Your task to perform on an android device: Go to internet settings Image 0: 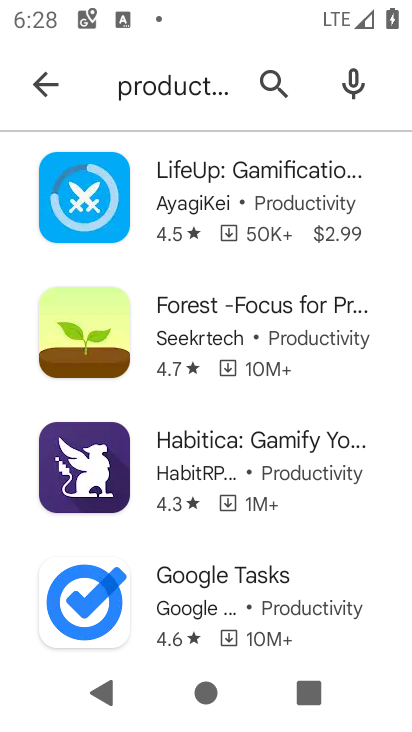
Step 0: press home button
Your task to perform on an android device: Go to internet settings Image 1: 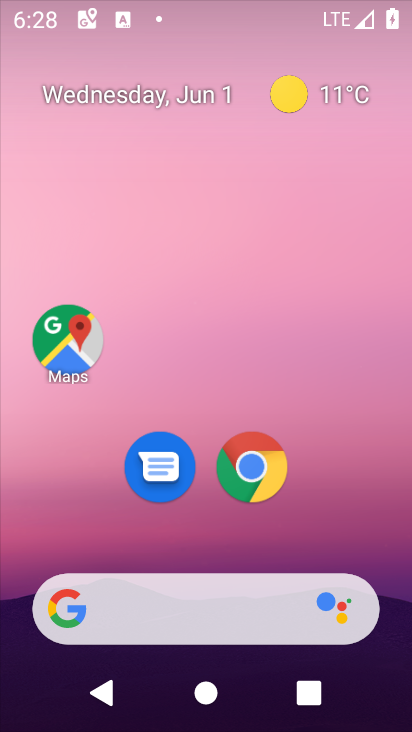
Step 1: drag from (311, 443) to (139, 46)
Your task to perform on an android device: Go to internet settings Image 2: 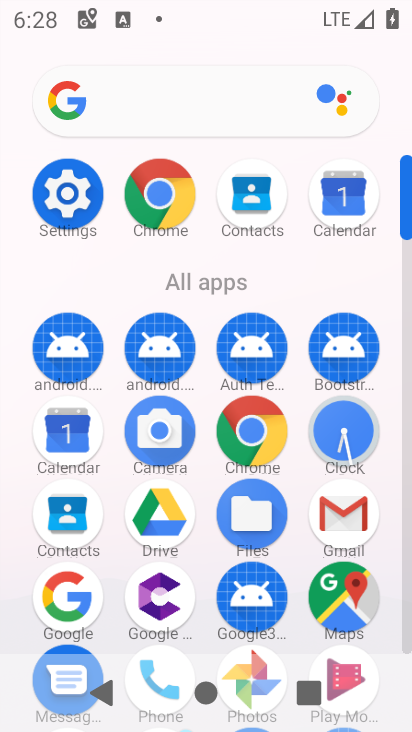
Step 2: click (71, 202)
Your task to perform on an android device: Go to internet settings Image 3: 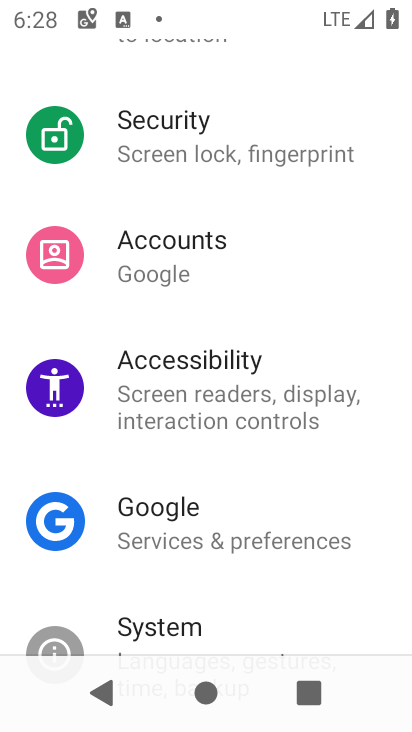
Step 3: drag from (301, 152) to (204, 611)
Your task to perform on an android device: Go to internet settings Image 4: 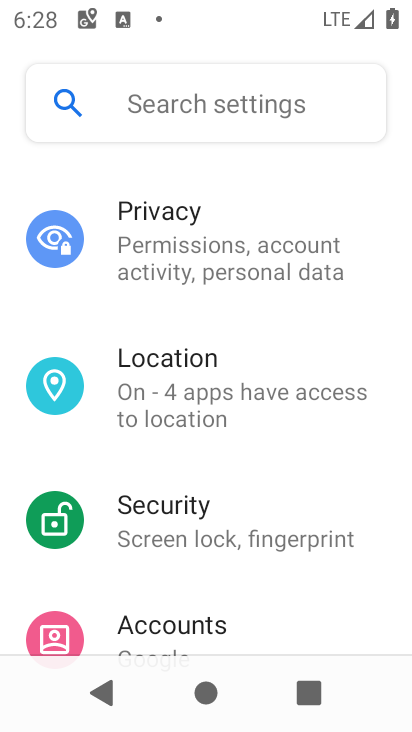
Step 4: drag from (286, 191) to (181, 598)
Your task to perform on an android device: Go to internet settings Image 5: 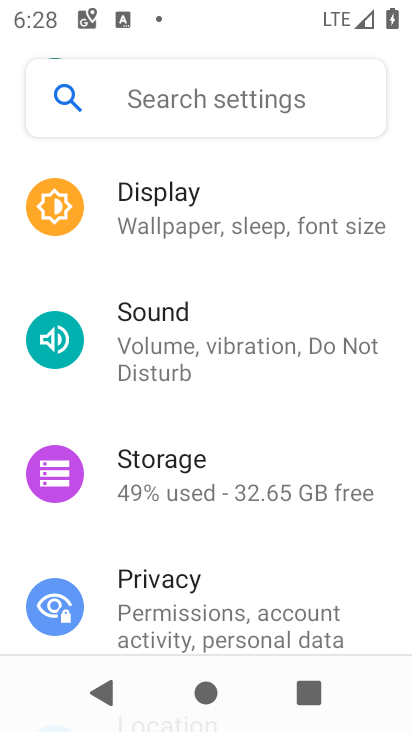
Step 5: drag from (265, 185) to (128, 626)
Your task to perform on an android device: Go to internet settings Image 6: 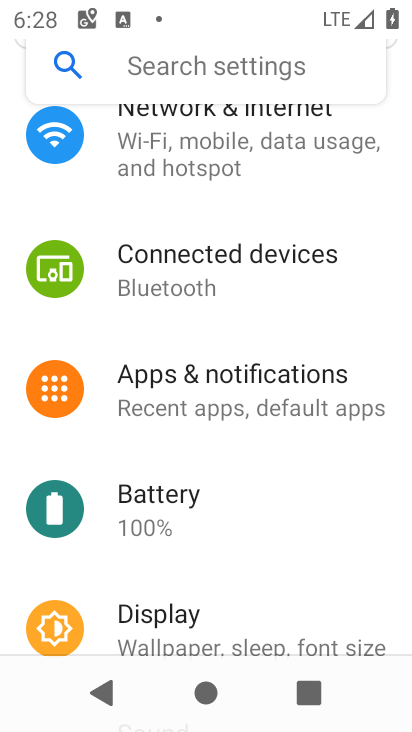
Step 6: drag from (227, 219) to (139, 602)
Your task to perform on an android device: Go to internet settings Image 7: 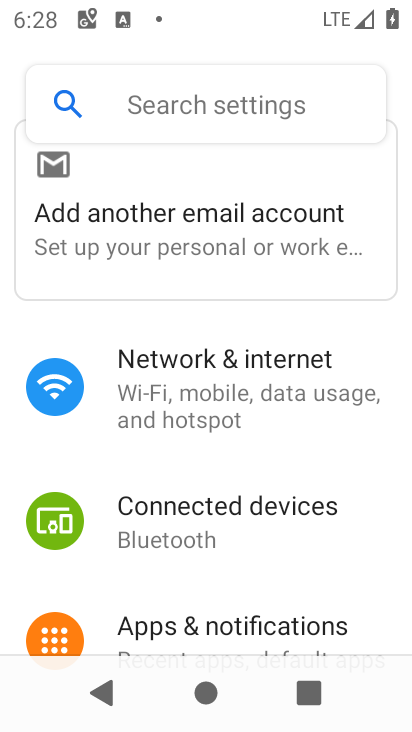
Step 7: click (200, 368)
Your task to perform on an android device: Go to internet settings Image 8: 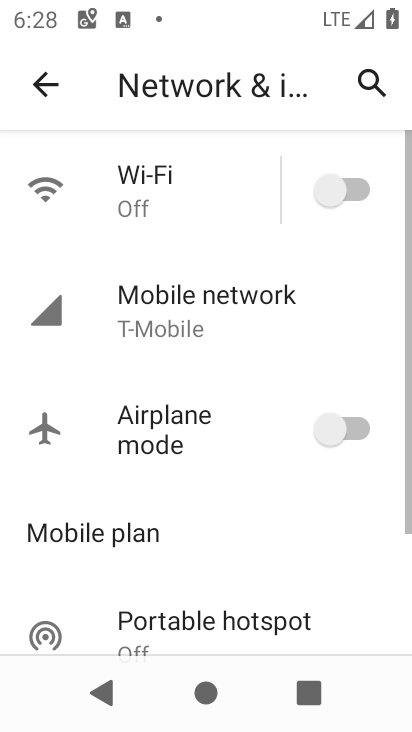
Step 8: task complete